Your task to perform on an android device: find which apps use the phone's location Image 0: 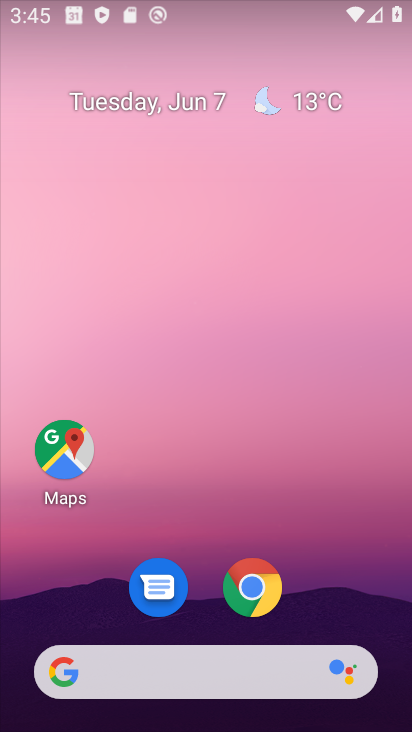
Step 0: drag from (223, 672) to (248, 56)
Your task to perform on an android device: find which apps use the phone's location Image 1: 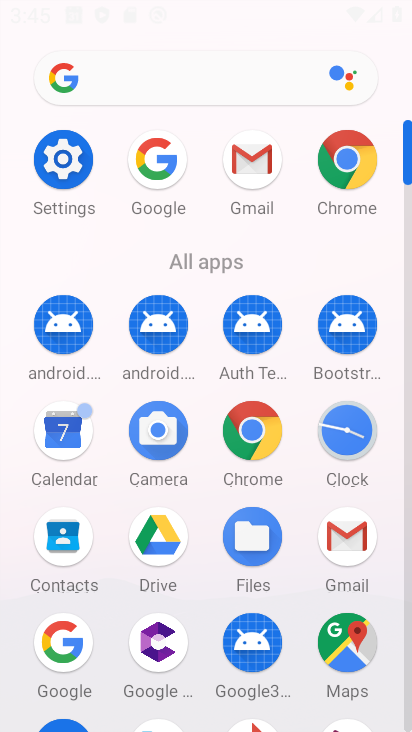
Step 1: click (63, 162)
Your task to perform on an android device: find which apps use the phone's location Image 2: 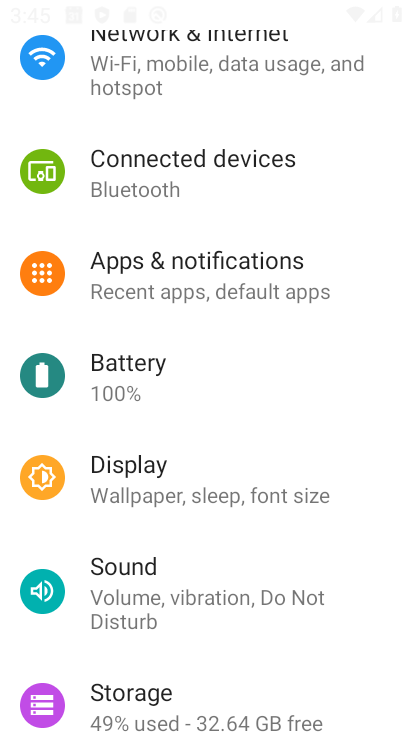
Step 2: drag from (140, 538) to (190, 107)
Your task to perform on an android device: find which apps use the phone's location Image 3: 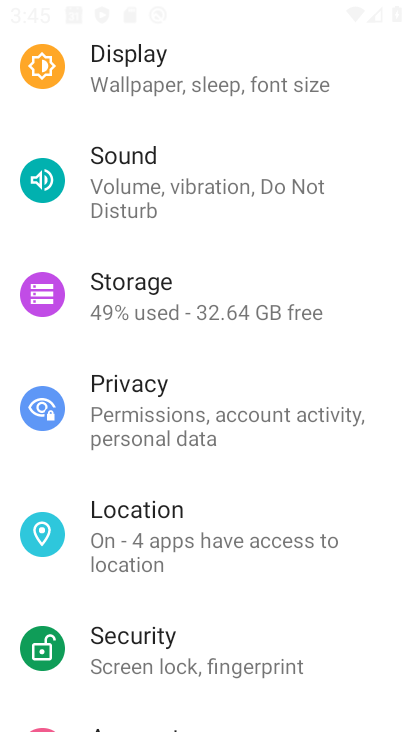
Step 3: click (215, 538)
Your task to perform on an android device: find which apps use the phone's location Image 4: 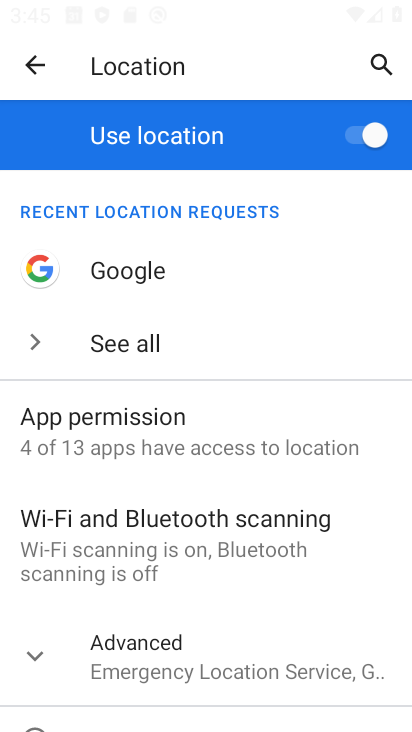
Step 4: drag from (217, 585) to (262, 224)
Your task to perform on an android device: find which apps use the phone's location Image 5: 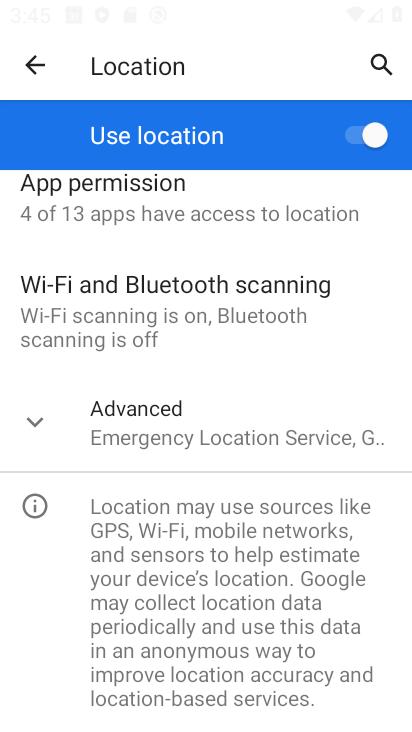
Step 5: drag from (242, 345) to (238, 561)
Your task to perform on an android device: find which apps use the phone's location Image 6: 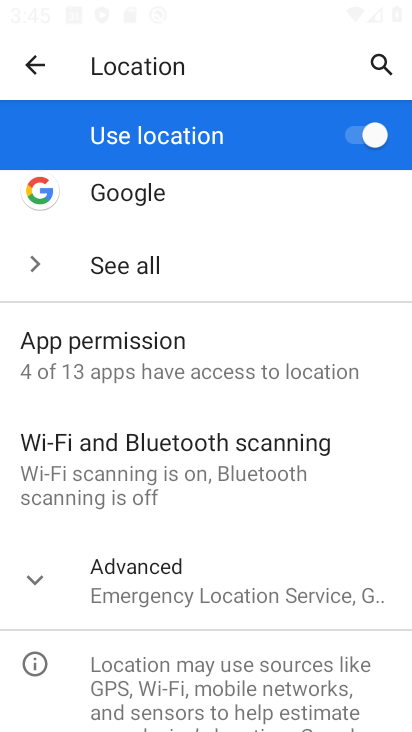
Step 6: click (228, 365)
Your task to perform on an android device: find which apps use the phone's location Image 7: 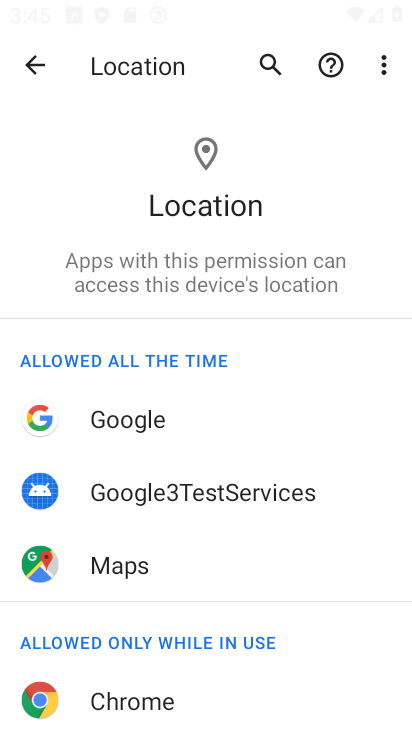
Step 7: task complete